Your task to perform on an android device: Open accessibility settings Image 0: 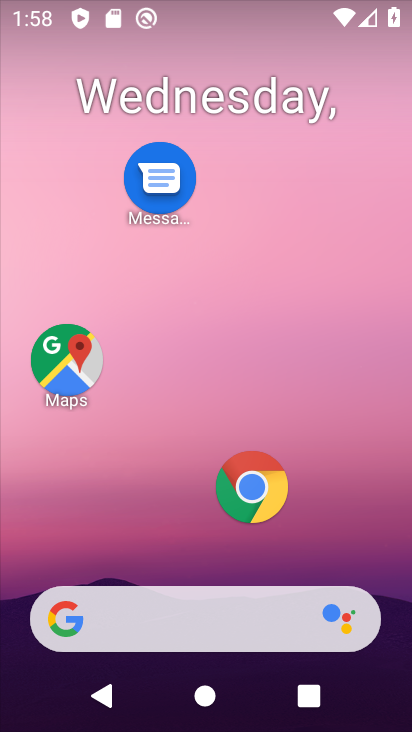
Step 0: click (223, 109)
Your task to perform on an android device: Open accessibility settings Image 1: 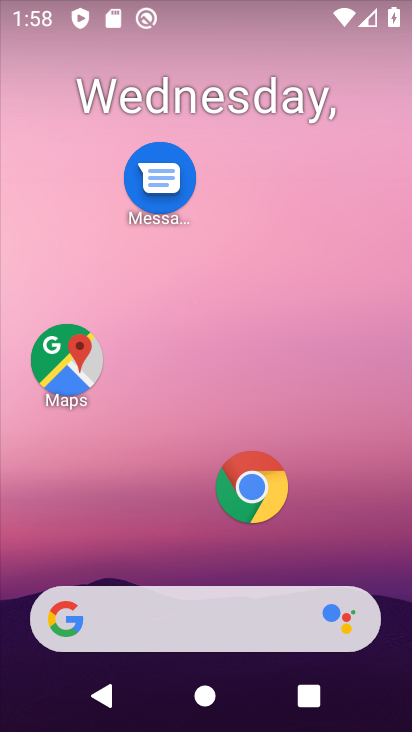
Step 1: drag from (195, 557) to (266, 233)
Your task to perform on an android device: Open accessibility settings Image 2: 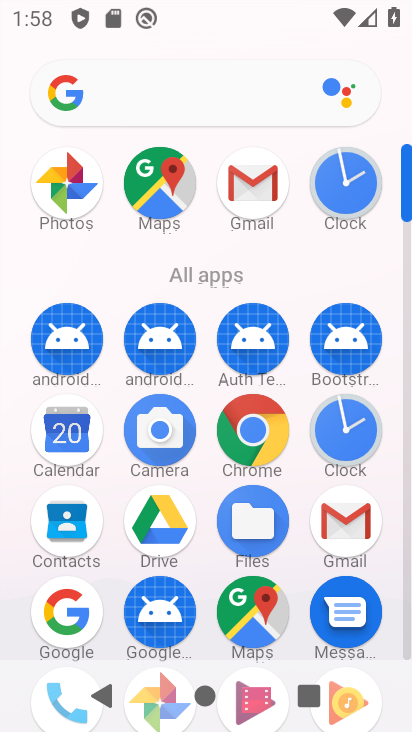
Step 2: drag from (204, 475) to (228, 185)
Your task to perform on an android device: Open accessibility settings Image 3: 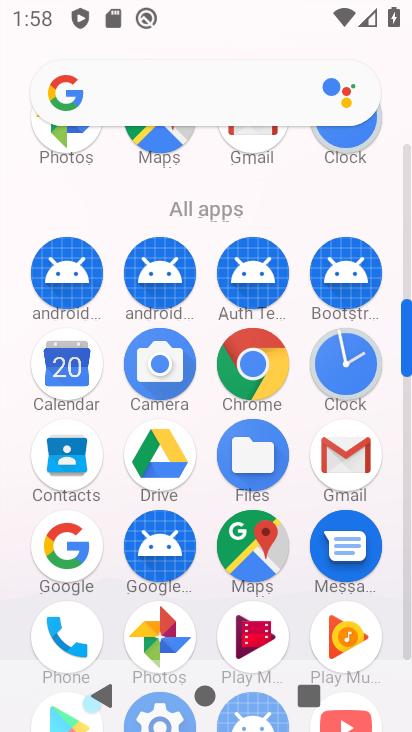
Step 3: drag from (202, 550) to (231, 233)
Your task to perform on an android device: Open accessibility settings Image 4: 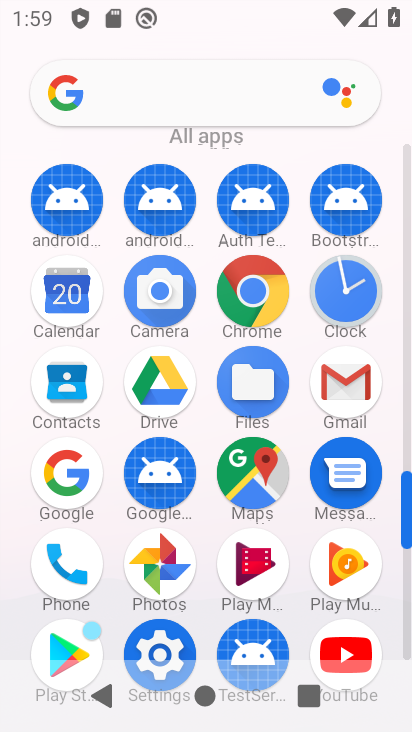
Step 4: click (171, 630)
Your task to perform on an android device: Open accessibility settings Image 5: 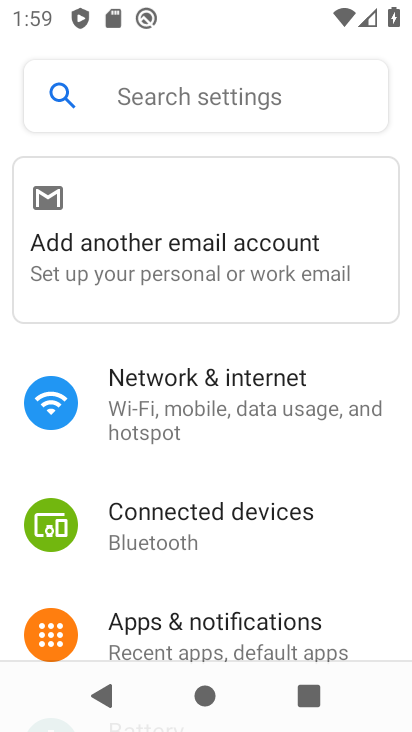
Step 5: drag from (218, 549) to (325, 179)
Your task to perform on an android device: Open accessibility settings Image 6: 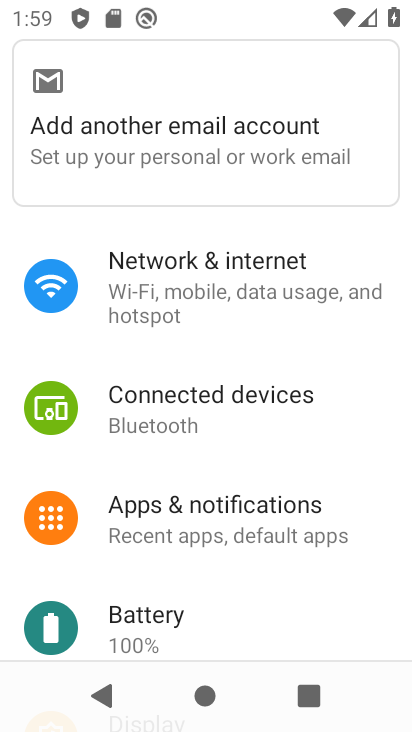
Step 6: drag from (215, 440) to (225, 199)
Your task to perform on an android device: Open accessibility settings Image 7: 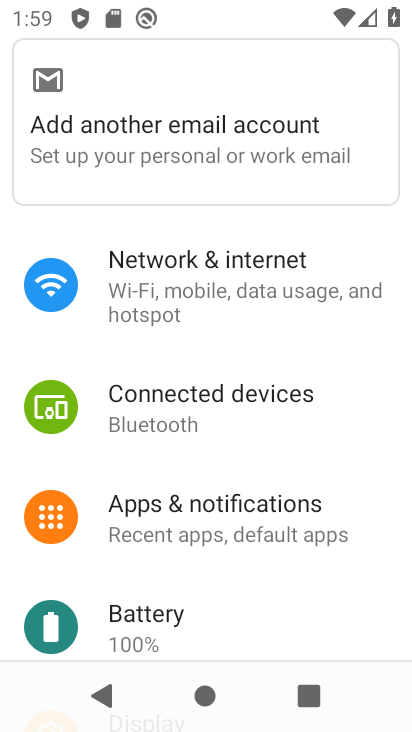
Step 7: drag from (220, 510) to (247, 194)
Your task to perform on an android device: Open accessibility settings Image 8: 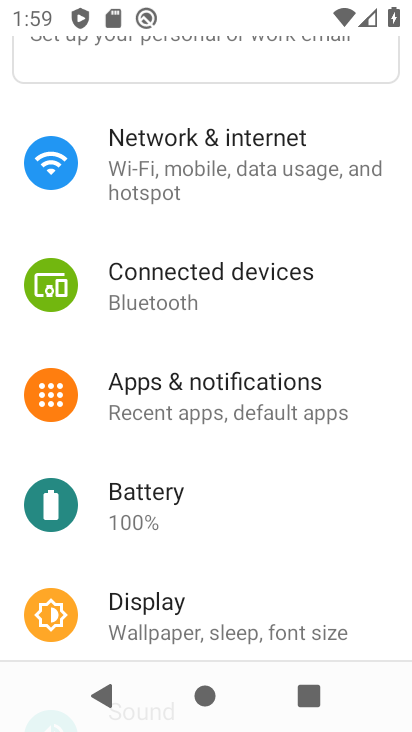
Step 8: drag from (215, 461) to (250, 177)
Your task to perform on an android device: Open accessibility settings Image 9: 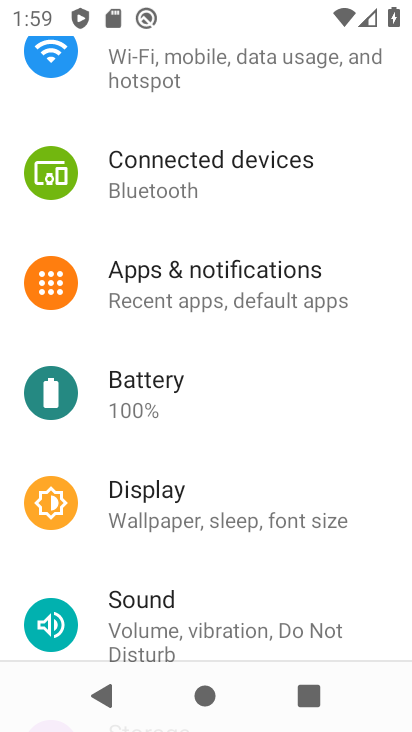
Step 9: drag from (248, 514) to (261, 195)
Your task to perform on an android device: Open accessibility settings Image 10: 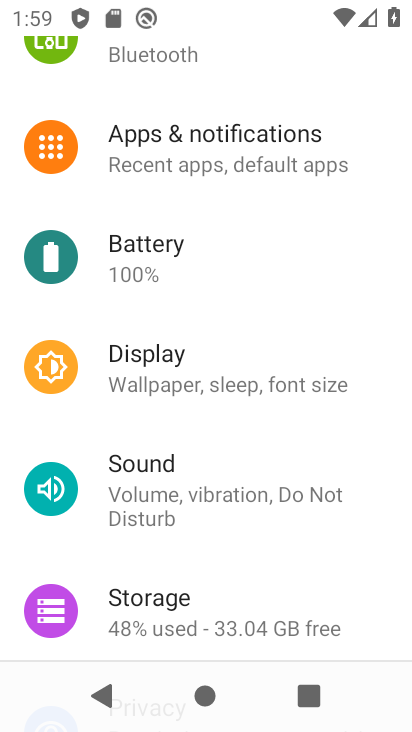
Step 10: drag from (226, 535) to (272, 202)
Your task to perform on an android device: Open accessibility settings Image 11: 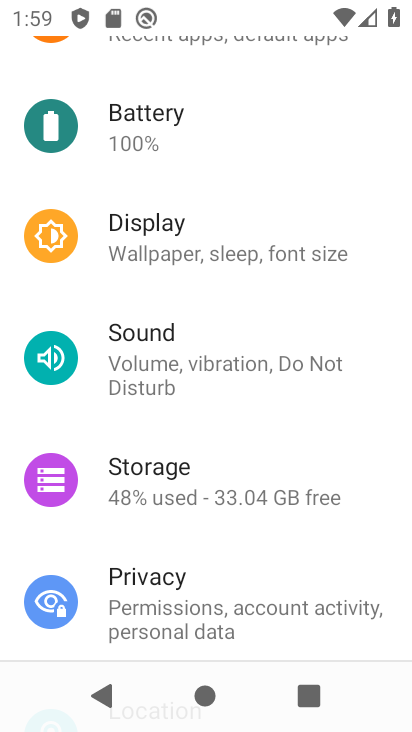
Step 11: drag from (226, 566) to (272, 208)
Your task to perform on an android device: Open accessibility settings Image 12: 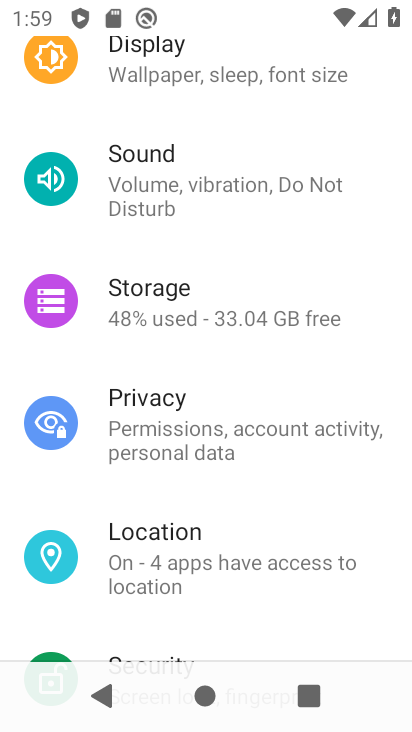
Step 12: drag from (245, 582) to (298, 215)
Your task to perform on an android device: Open accessibility settings Image 13: 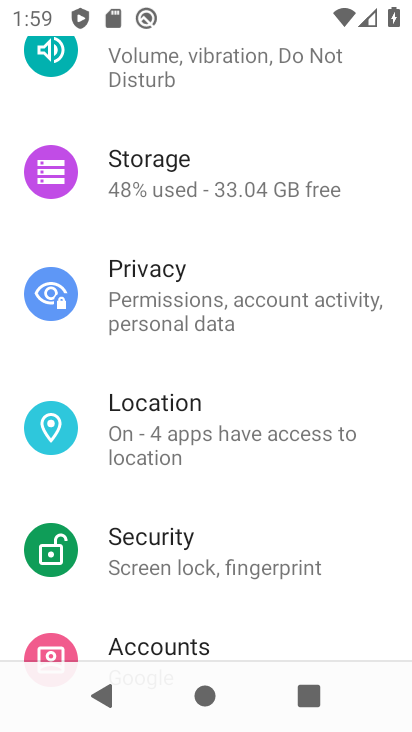
Step 13: drag from (253, 480) to (288, 212)
Your task to perform on an android device: Open accessibility settings Image 14: 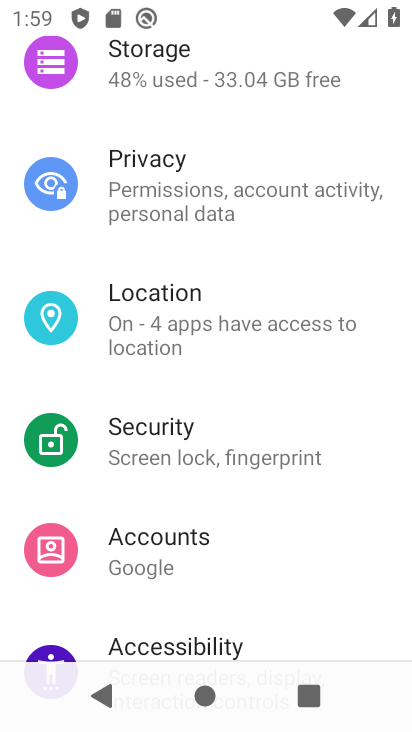
Step 14: click (230, 631)
Your task to perform on an android device: Open accessibility settings Image 15: 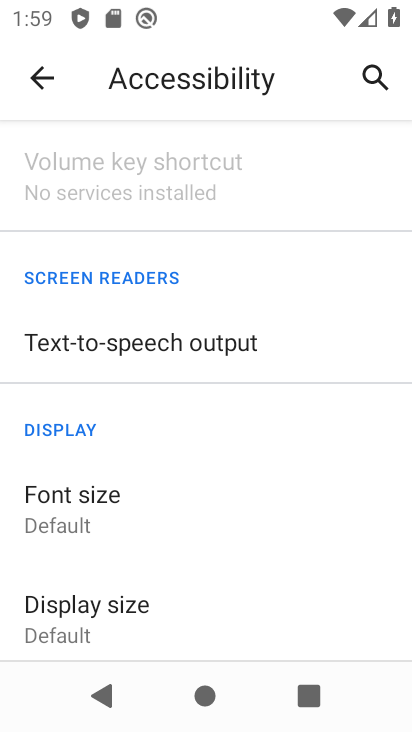
Step 15: task complete